Your task to perform on an android device: add a contact Image 0: 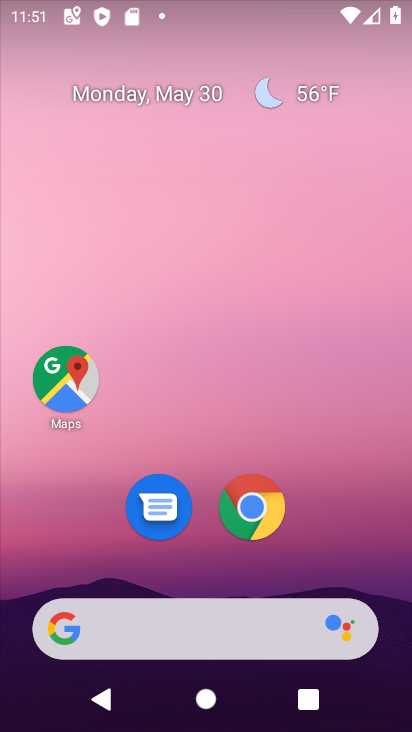
Step 0: press home button
Your task to perform on an android device: add a contact Image 1: 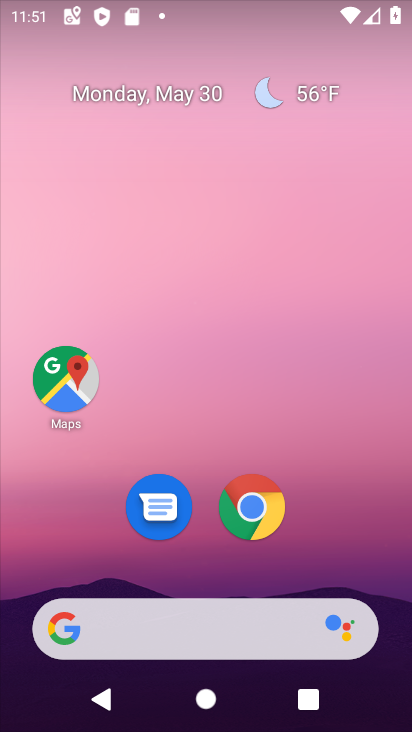
Step 1: drag from (338, 570) to (333, 272)
Your task to perform on an android device: add a contact Image 2: 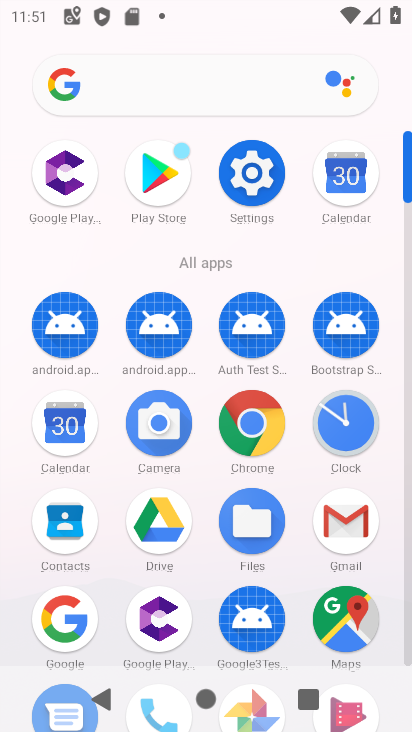
Step 2: click (66, 512)
Your task to perform on an android device: add a contact Image 3: 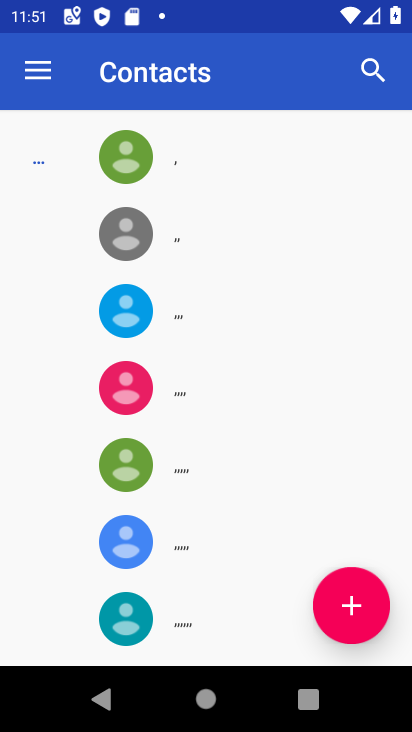
Step 3: click (344, 606)
Your task to perform on an android device: add a contact Image 4: 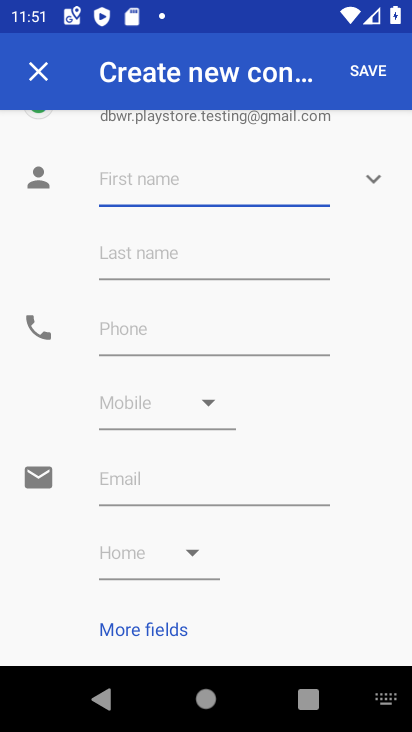
Step 4: click (176, 179)
Your task to perform on an android device: add a contact Image 5: 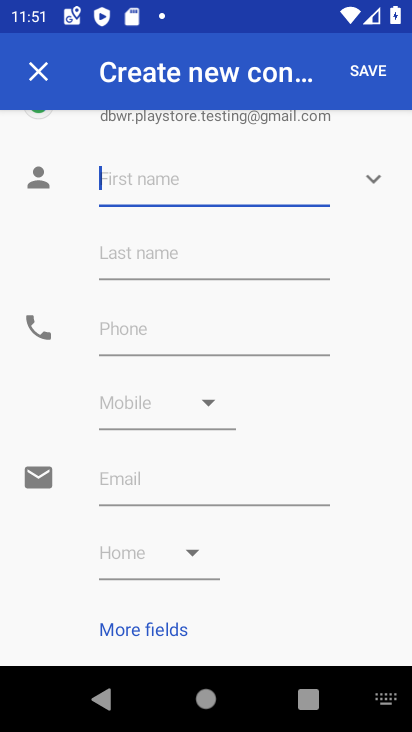
Step 5: type "ffdgdgre"
Your task to perform on an android device: add a contact Image 6: 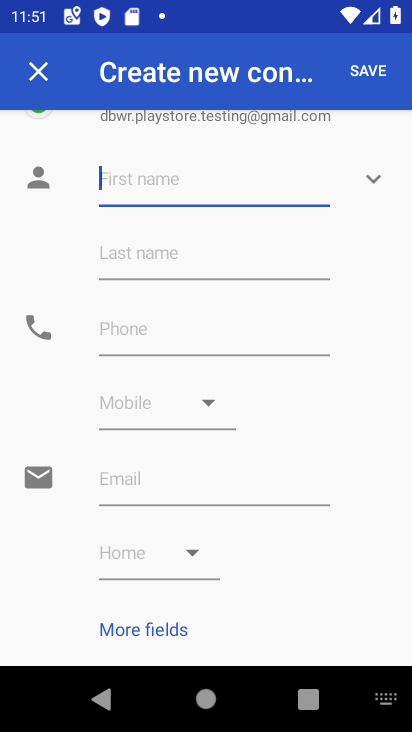
Step 6: click (130, 184)
Your task to perform on an android device: add a contact Image 7: 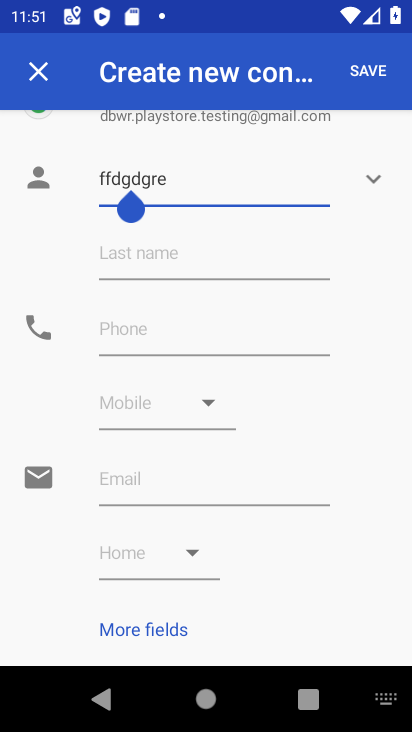
Step 7: click (126, 328)
Your task to perform on an android device: add a contact Image 8: 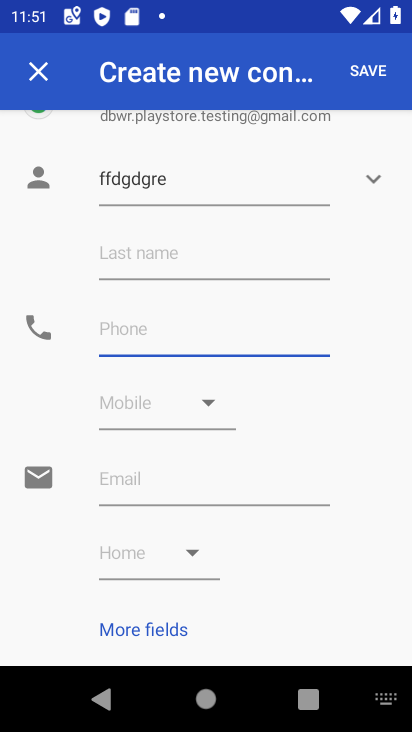
Step 8: type "245676"
Your task to perform on an android device: add a contact Image 9: 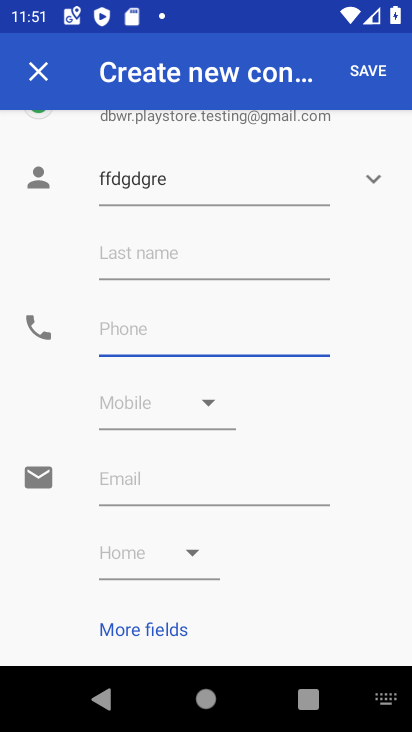
Step 9: click (169, 323)
Your task to perform on an android device: add a contact Image 10: 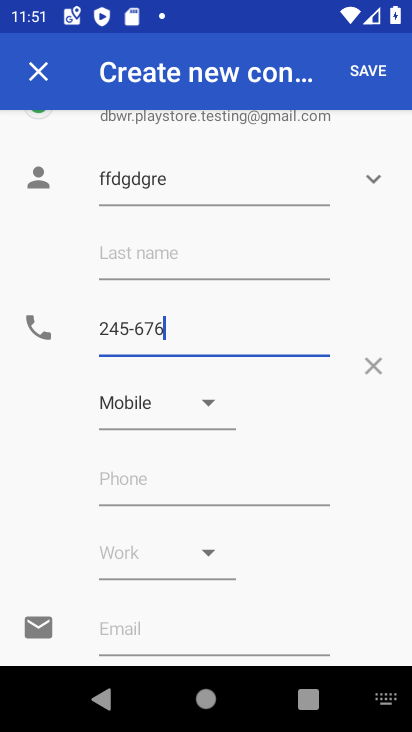
Step 10: click (367, 76)
Your task to perform on an android device: add a contact Image 11: 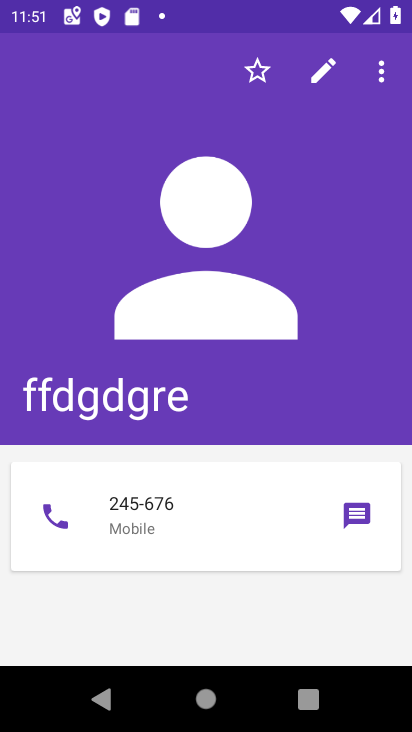
Step 11: task complete